Your task to perform on an android device: Go to internet settings Image 0: 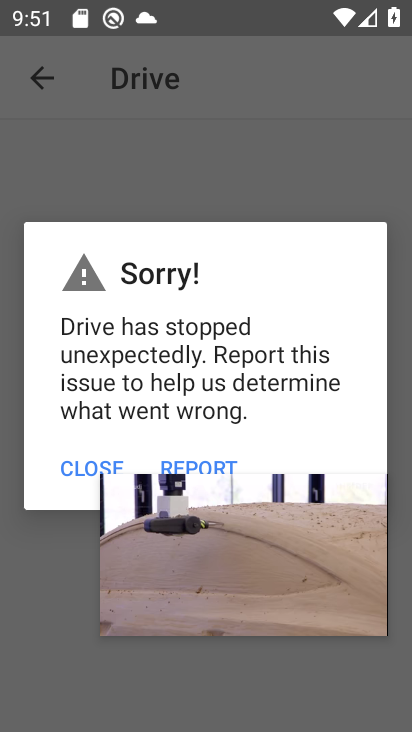
Step 0: click (377, 491)
Your task to perform on an android device: Go to internet settings Image 1: 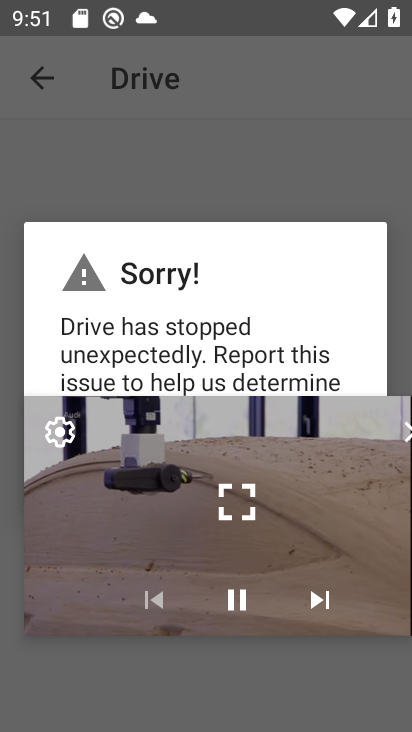
Step 1: click (377, 491)
Your task to perform on an android device: Go to internet settings Image 2: 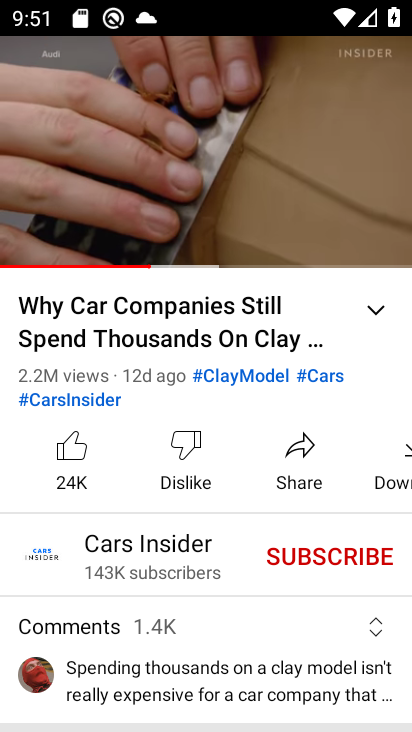
Step 2: press back button
Your task to perform on an android device: Go to internet settings Image 3: 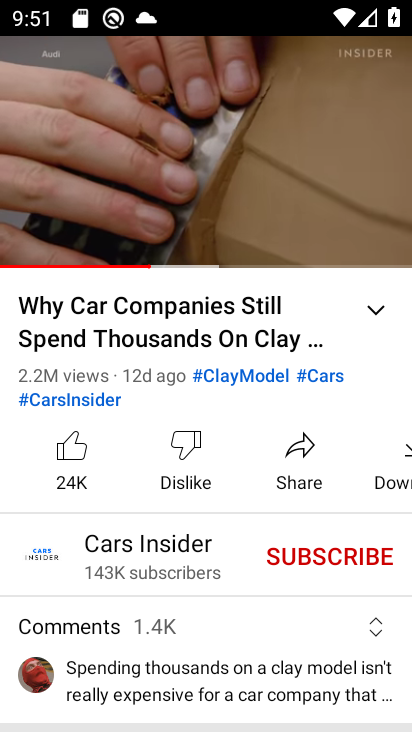
Step 3: press back button
Your task to perform on an android device: Go to internet settings Image 4: 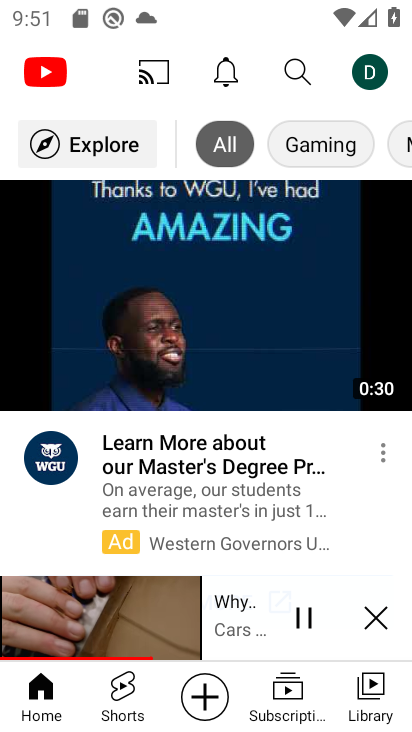
Step 4: press back button
Your task to perform on an android device: Go to internet settings Image 5: 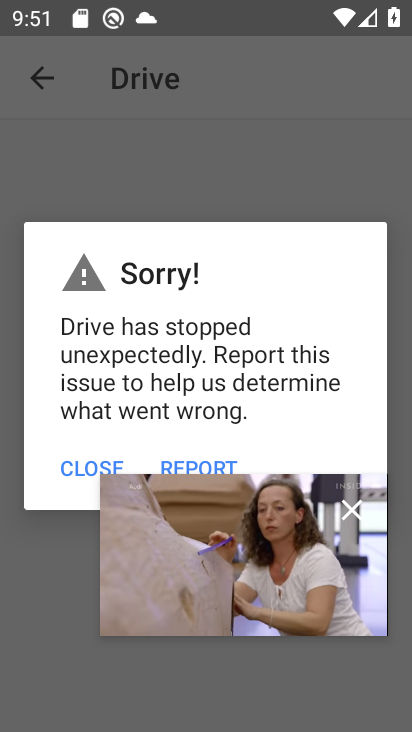
Step 5: click (352, 489)
Your task to perform on an android device: Go to internet settings Image 6: 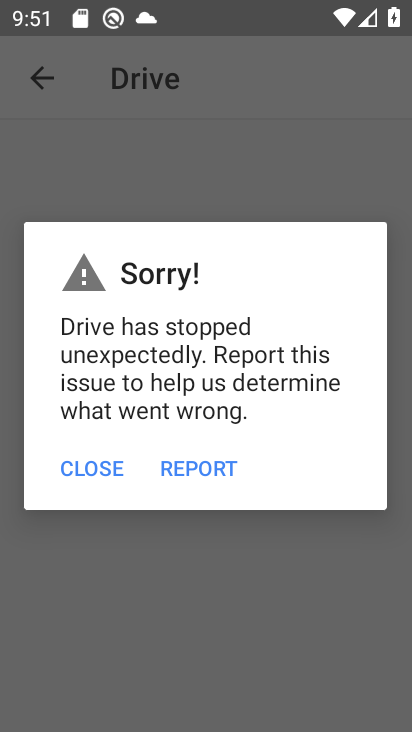
Step 6: press home button
Your task to perform on an android device: Go to internet settings Image 7: 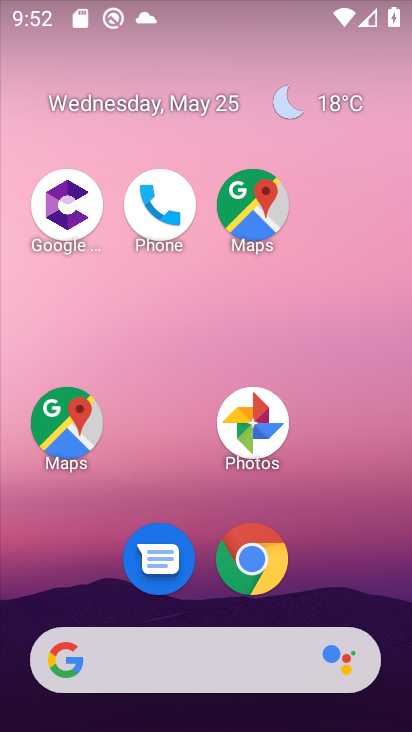
Step 7: press home button
Your task to perform on an android device: Go to internet settings Image 8: 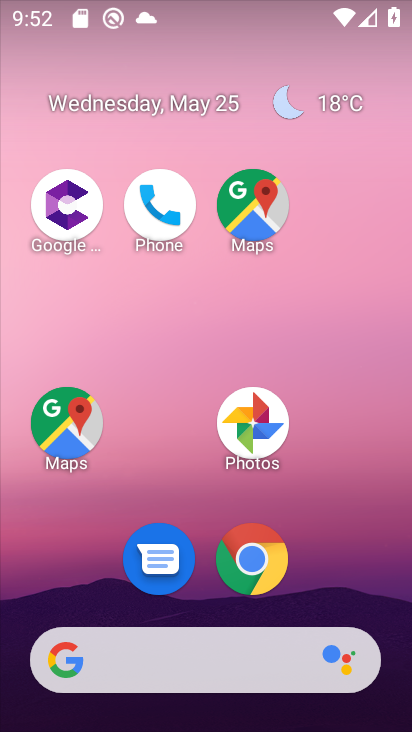
Step 8: drag from (317, 588) to (280, 332)
Your task to perform on an android device: Go to internet settings Image 9: 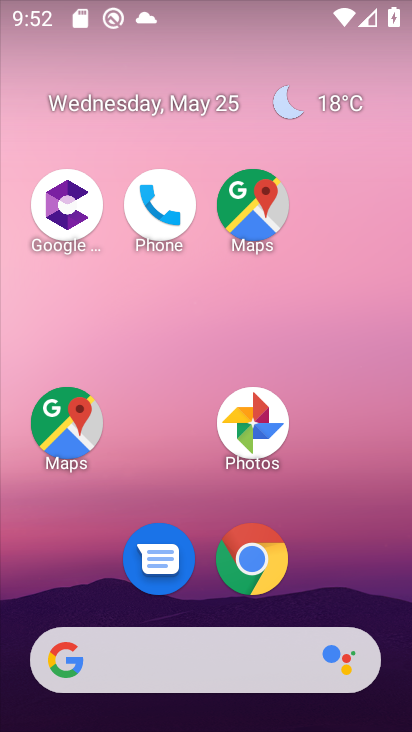
Step 9: drag from (343, 577) to (312, 3)
Your task to perform on an android device: Go to internet settings Image 10: 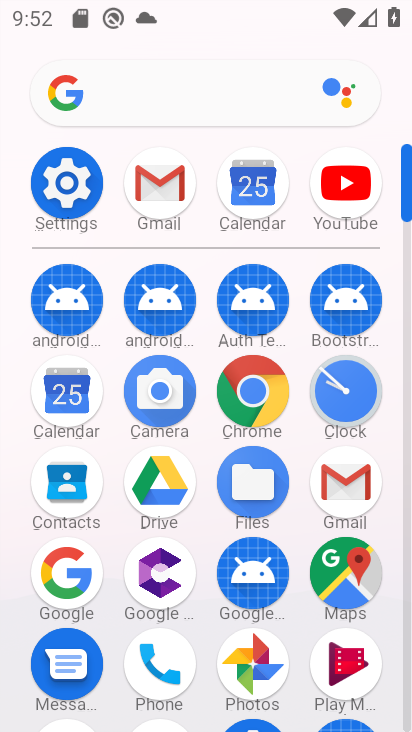
Step 10: click (58, 183)
Your task to perform on an android device: Go to internet settings Image 11: 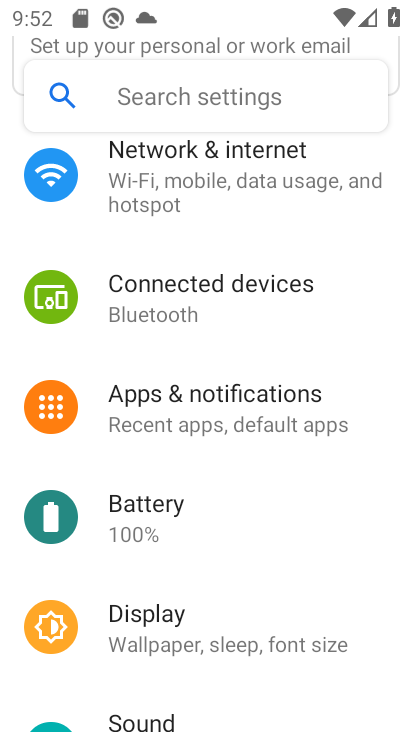
Step 11: click (230, 173)
Your task to perform on an android device: Go to internet settings Image 12: 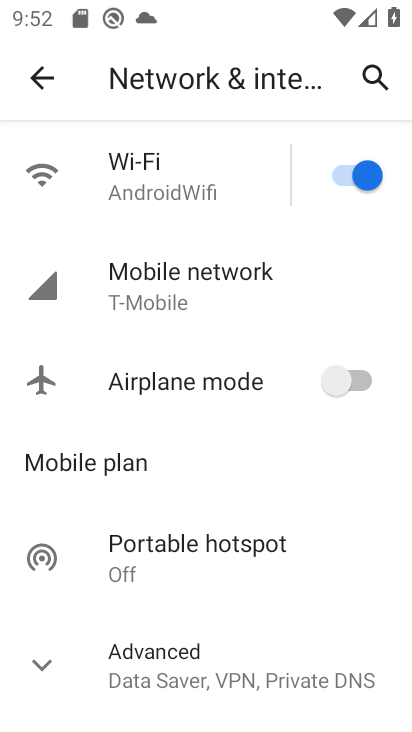
Step 12: click (293, 282)
Your task to perform on an android device: Go to internet settings Image 13: 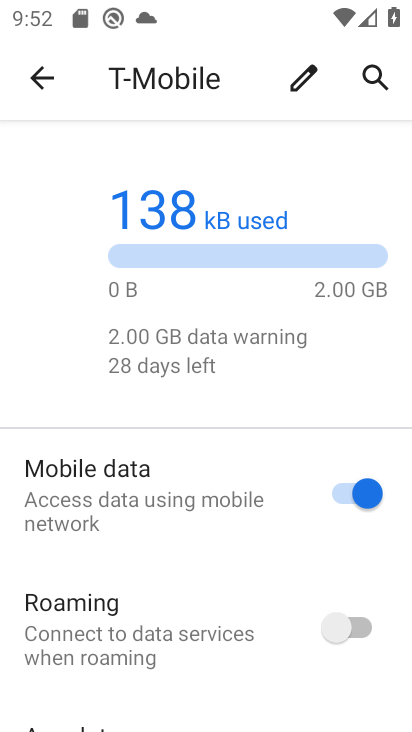
Step 13: task complete